Your task to perform on an android device: Go to internet settings Image 0: 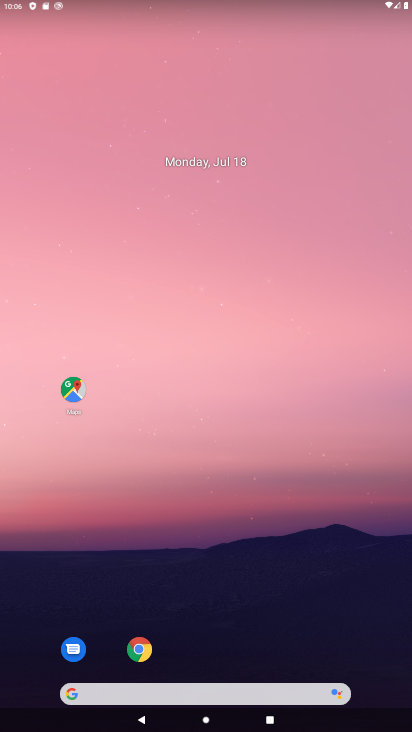
Step 0: drag from (216, 561) to (154, 107)
Your task to perform on an android device: Go to internet settings Image 1: 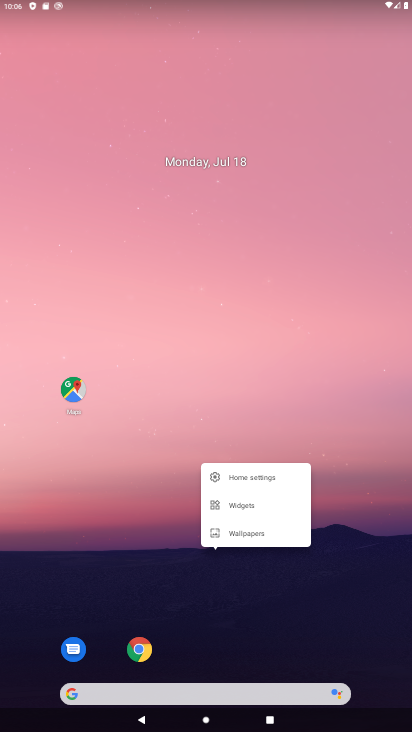
Step 1: click (203, 171)
Your task to perform on an android device: Go to internet settings Image 2: 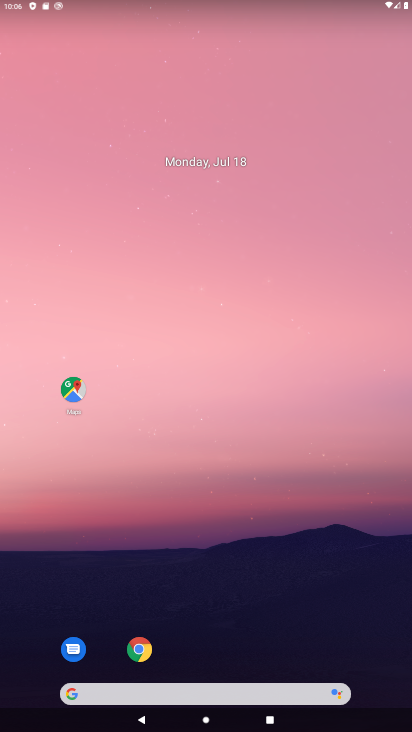
Step 2: click (243, 327)
Your task to perform on an android device: Go to internet settings Image 3: 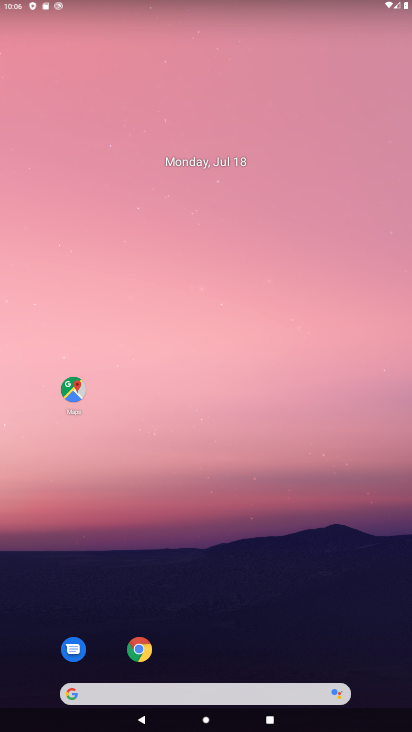
Step 3: drag from (251, 539) to (184, 83)
Your task to perform on an android device: Go to internet settings Image 4: 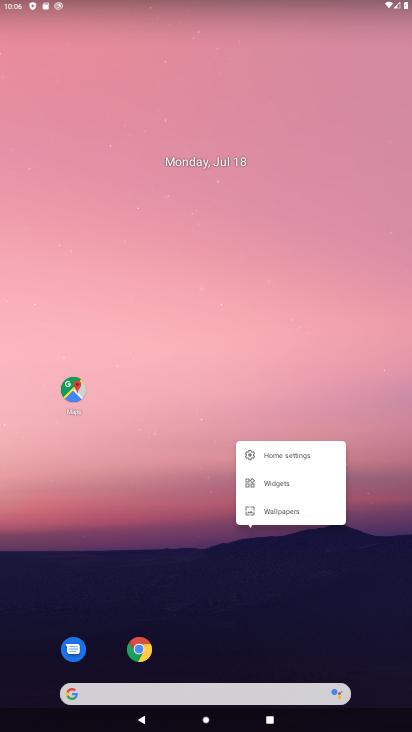
Step 4: click (144, 594)
Your task to perform on an android device: Go to internet settings Image 5: 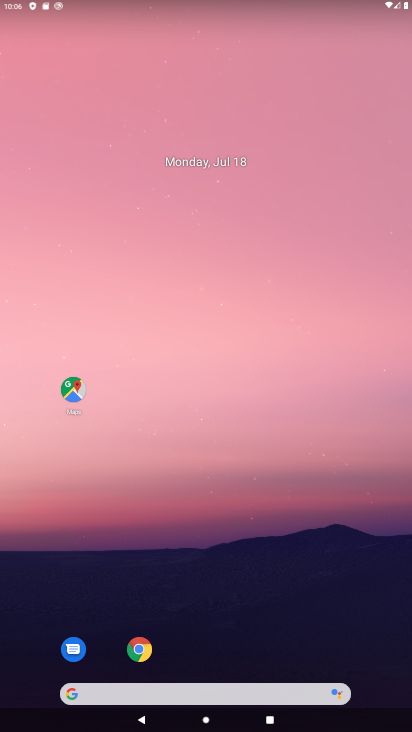
Step 5: drag from (266, 581) to (174, 24)
Your task to perform on an android device: Go to internet settings Image 6: 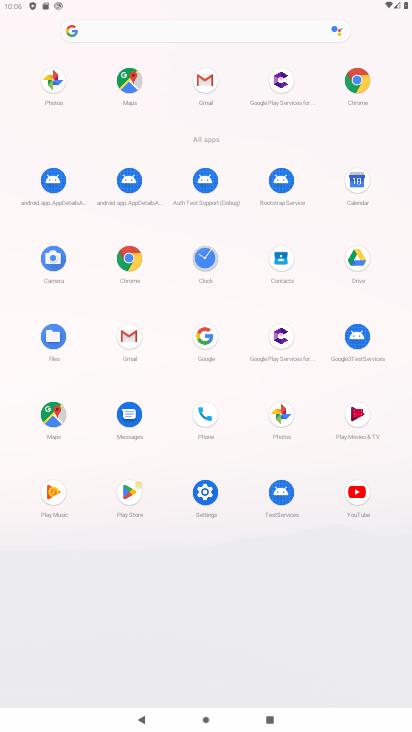
Step 6: click (205, 497)
Your task to perform on an android device: Go to internet settings Image 7: 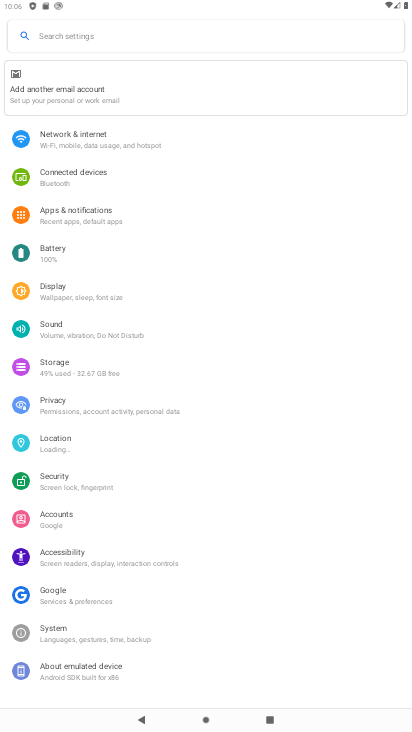
Step 7: click (78, 139)
Your task to perform on an android device: Go to internet settings Image 8: 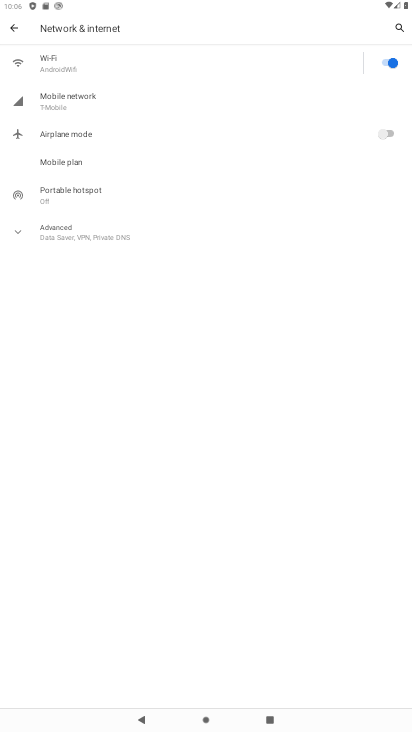
Step 8: task complete